Your task to perform on an android device: Search for vegetarian restaurants on Maps Image 0: 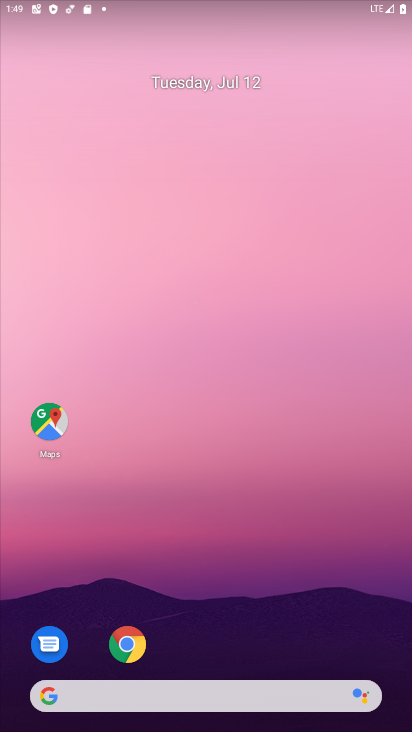
Step 0: click (57, 416)
Your task to perform on an android device: Search for vegetarian restaurants on Maps Image 1: 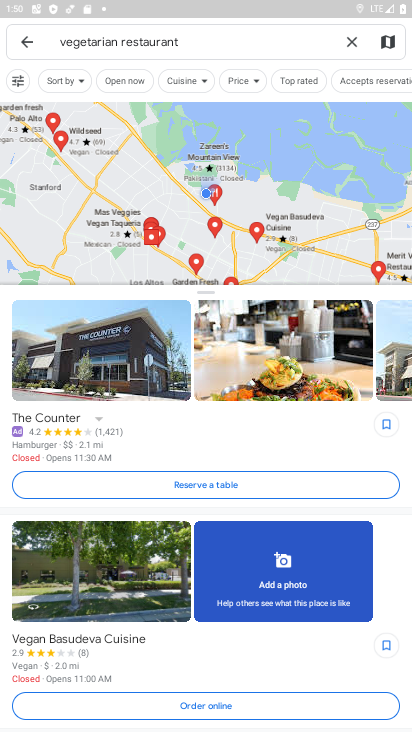
Step 1: task complete